Your task to perform on an android device: Search for Mexican restaurants on Maps Image 0: 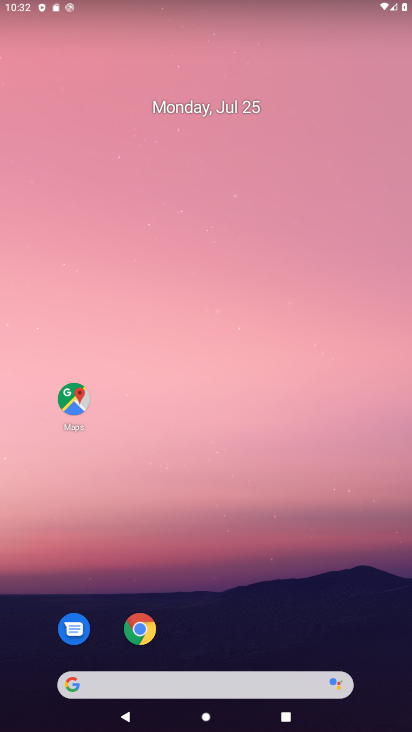
Step 0: click (78, 398)
Your task to perform on an android device: Search for Mexican restaurants on Maps Image 1: 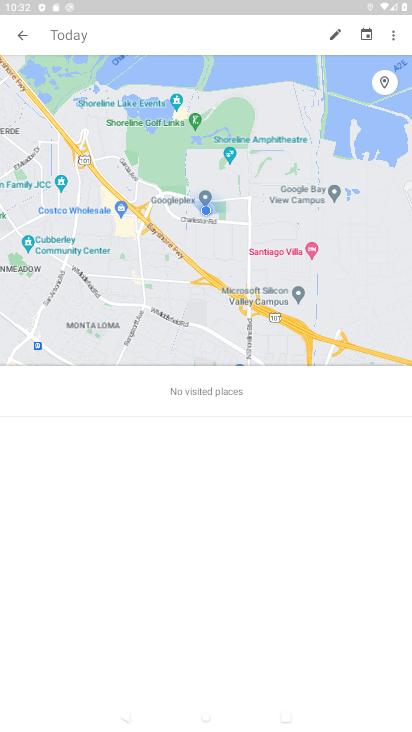
Step 1: click (22, 36)
Your task to perform on an android device: Search for Mexican restaurants on Maps Image 2: 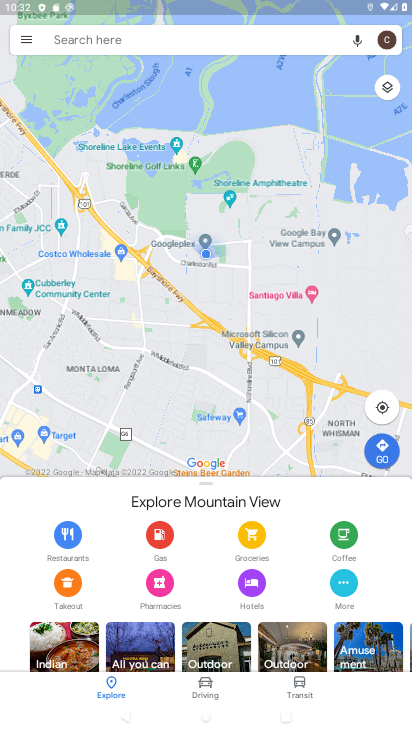
Step 2: click (58, 40)
Your task to perform on an android device: Search for Mexican restaurants on Maps Image 3: 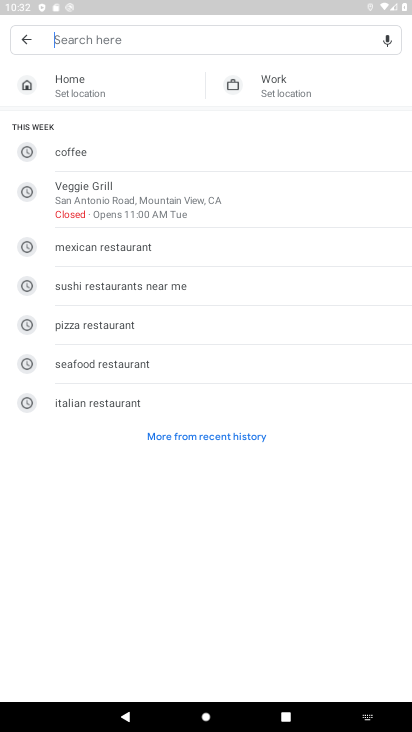
Step 3: click (77, 247)
Your task to perform on an android device: Search for Mexican restaurants on Maps Image 4: 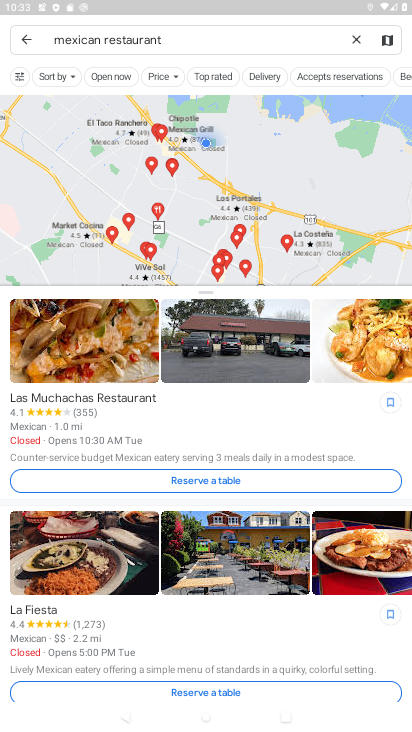
Step 4: task complete